Your task to perform on an android device: Search for "jbl charge 4" on amazon.com, select the first entry, and add it to the cart. Image 0: 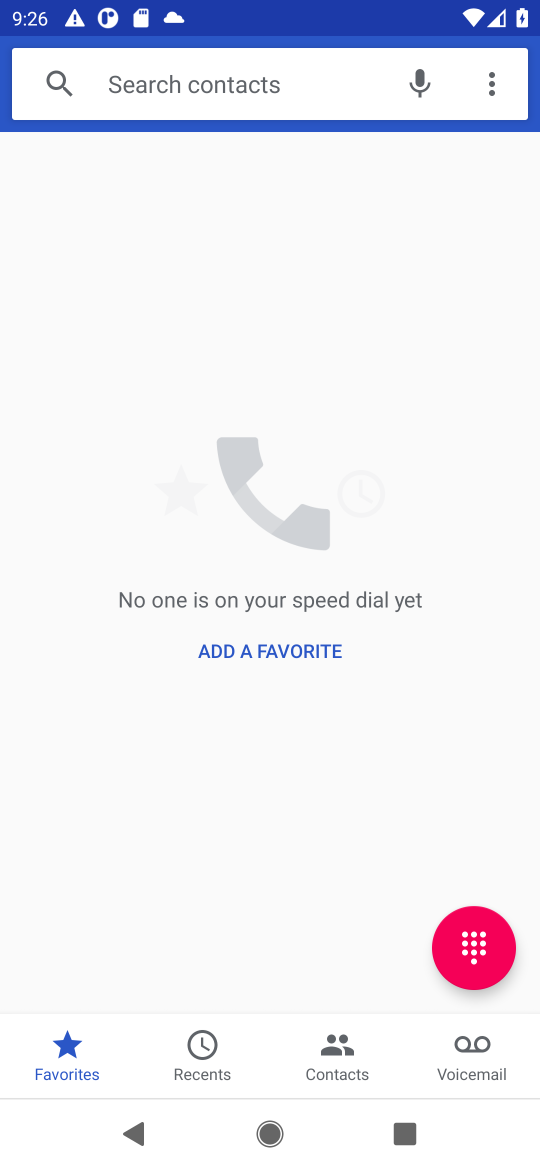
Step 0: press home button
Your task to perform on an android device: Search for "jbl charge 4" on amazon.com, select the first entry, and add it to the cart. Image 1: 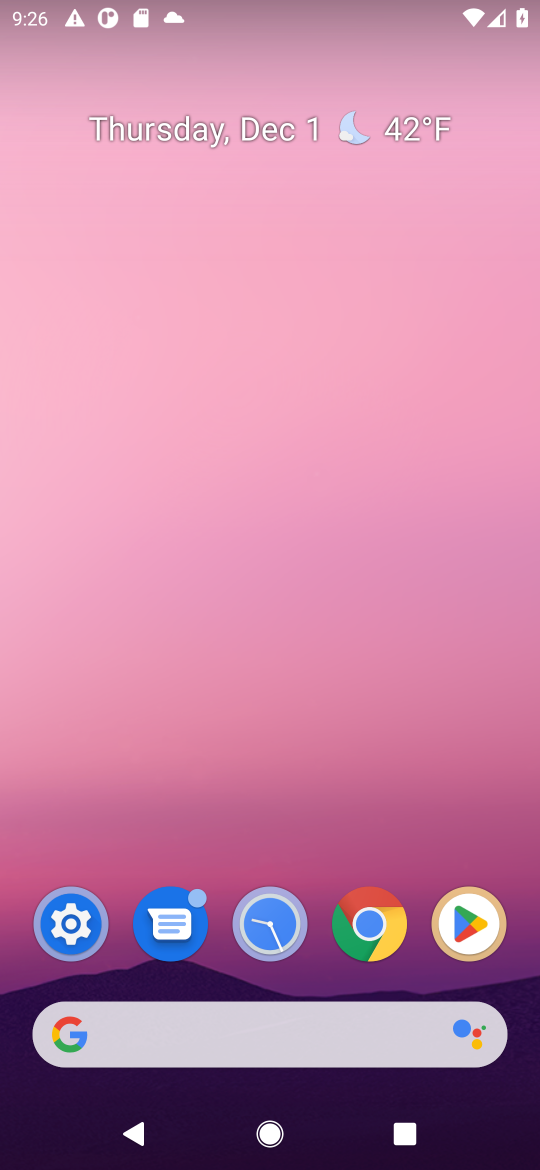
Step 1: click (298, 1037)
Your task to perform on an android device: Search for "jbl charge 4" on amazon.com, select the first entry, and add it to the cart. Image 2: 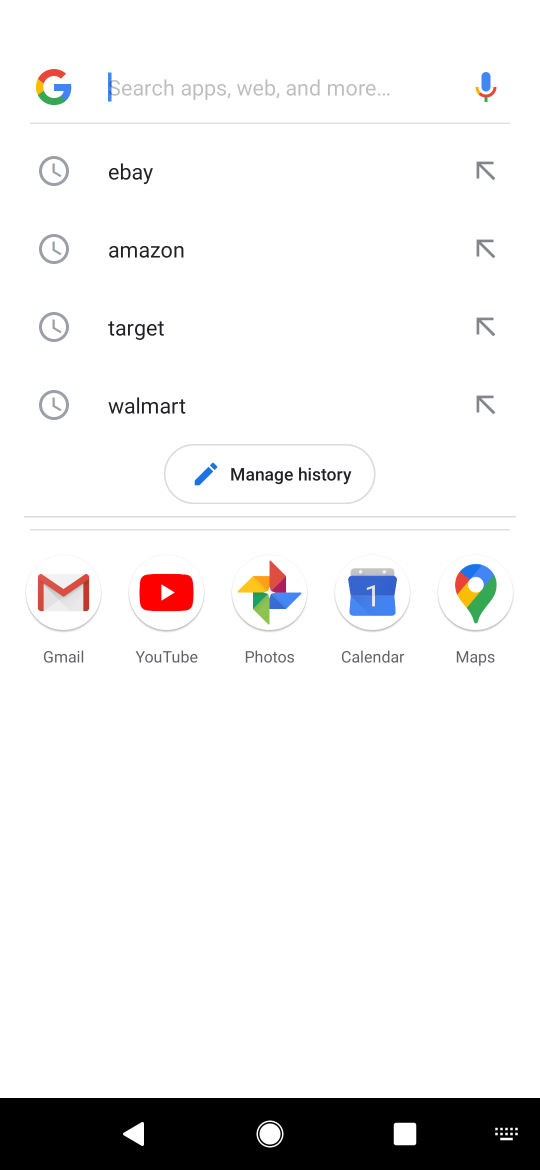
Step 2: type "amaon"
Your task to perform on an android device: Search for "jbl charge 4" on amazon.com, select the first entry, and add it to the cart. Image 3: 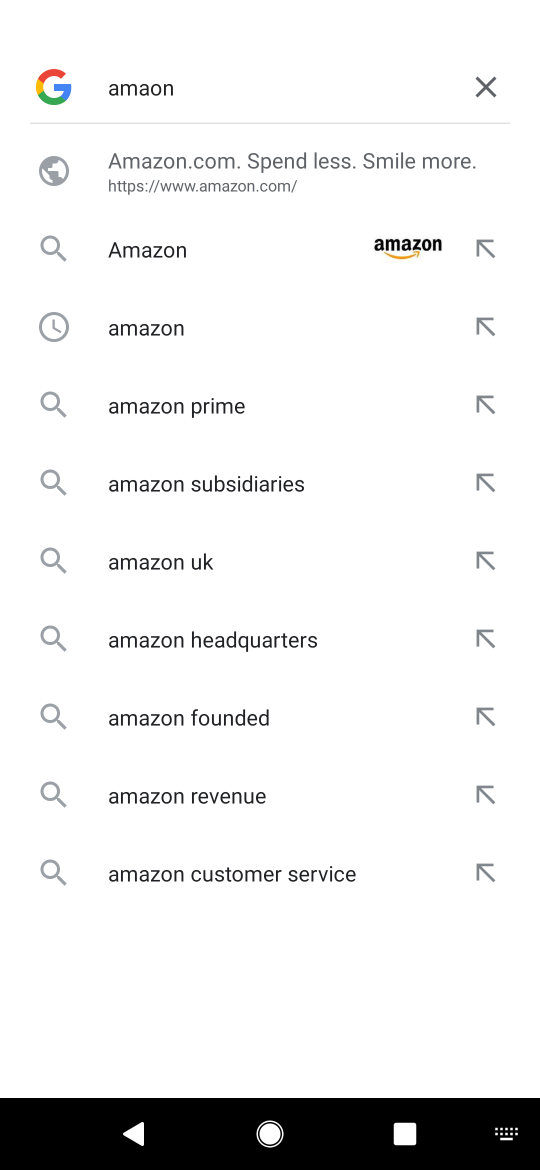
Step 3: click (249, 164)
Your task to perform on an android device: Search for "jbl charge 4" on amazon.com, select the first entry, and add it to the cart. Image 4: 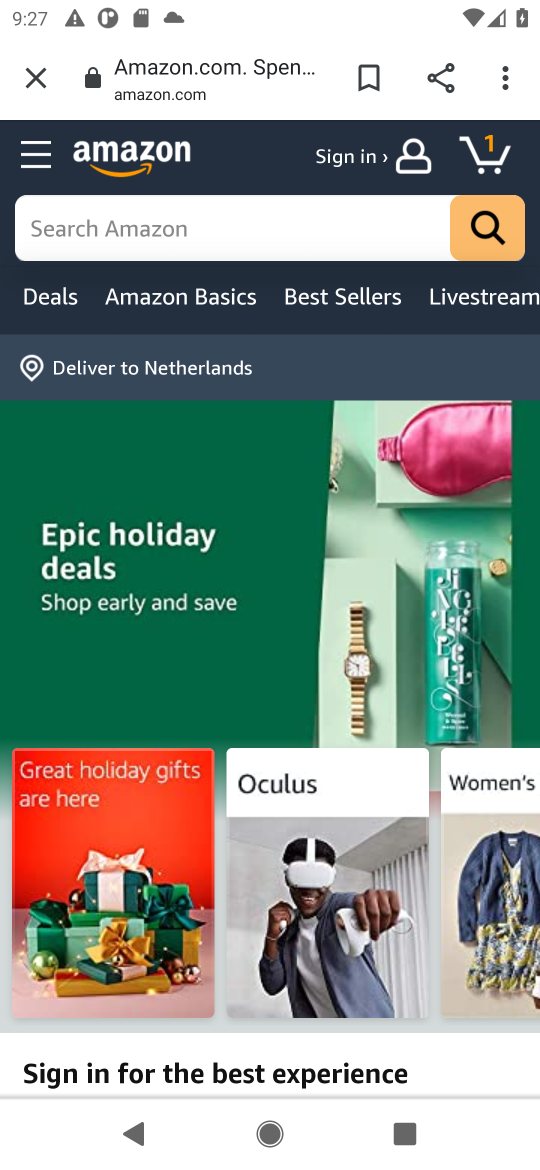
Step 4: click (298, 220)
Your task to perform on an android device: Search for "jbl charge 4" on amazon.com, select the first entry, and add it to the cart. Image 5: 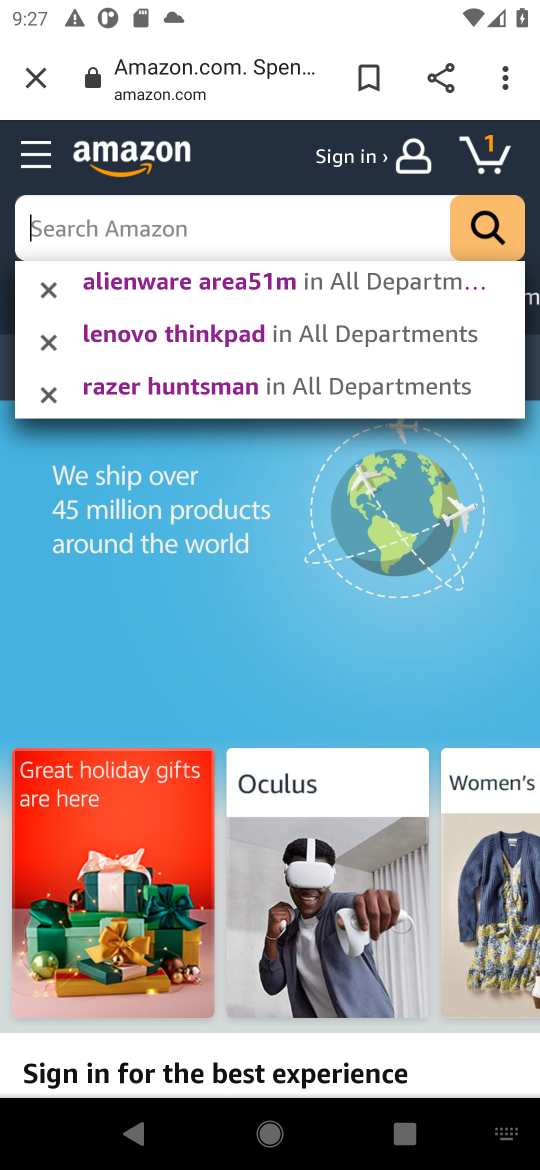
Step 5: type "jbl charge 4"
Your task to perform on an android device: Search for "jbl charge 4" on amazon.com, select the first entry, and add it to the cart. Image 6: 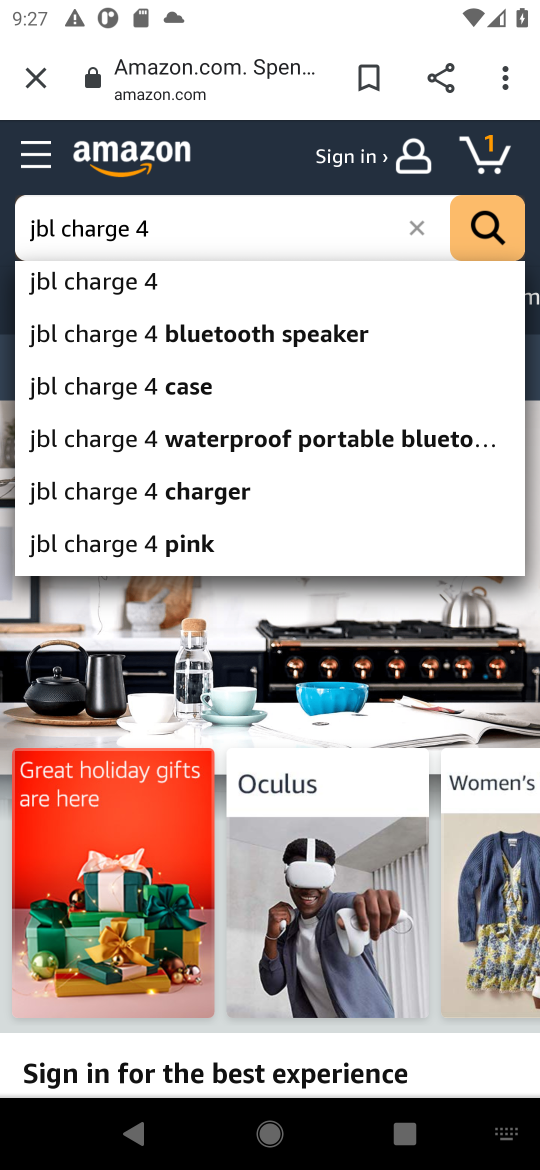
Step 6: click (127, 295)
Your task to perform on an android device: Search for "jbl charge 4" on amazon.com, select the first entry, and add it to the cart. Image 7: 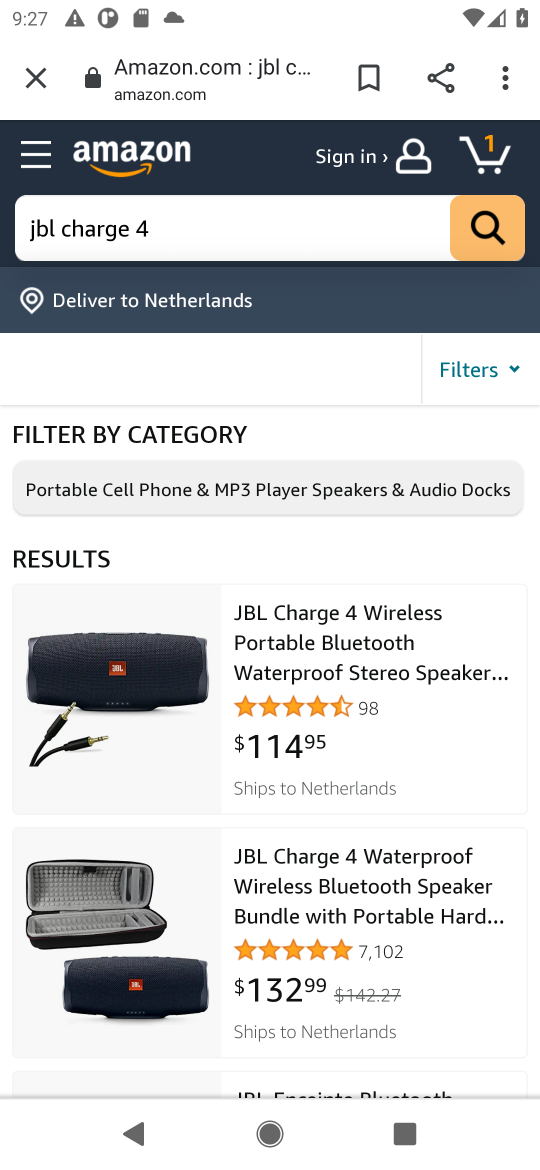
Step 7: click (372, 633)
Your task to perform on an android device: Search for "jbl charge 4" on amazon.com, select the first entry, and add it to the cart. Image 8: 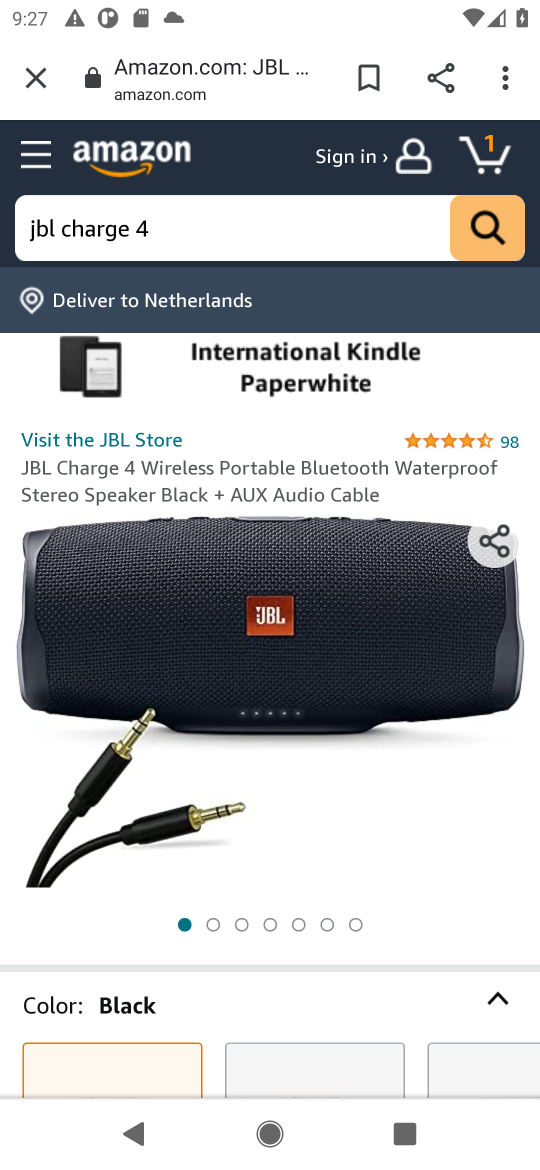
Step 8: task complete